Your task to perform on an android device: Go to Amazon Image 0: 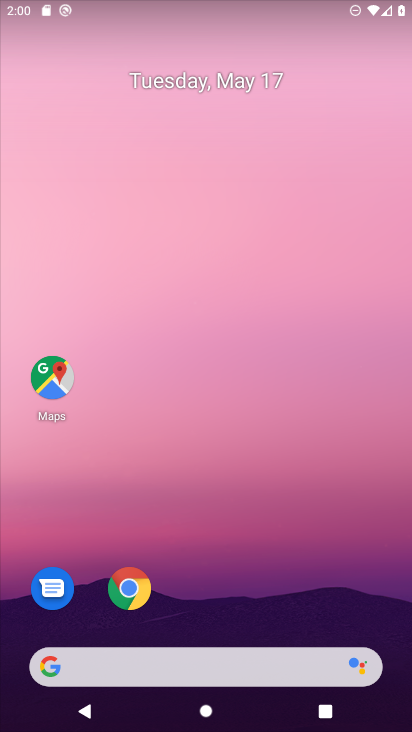
Step 0: click (145, 580)
Your task to perform on an android device: Go to Amazon Image 1: 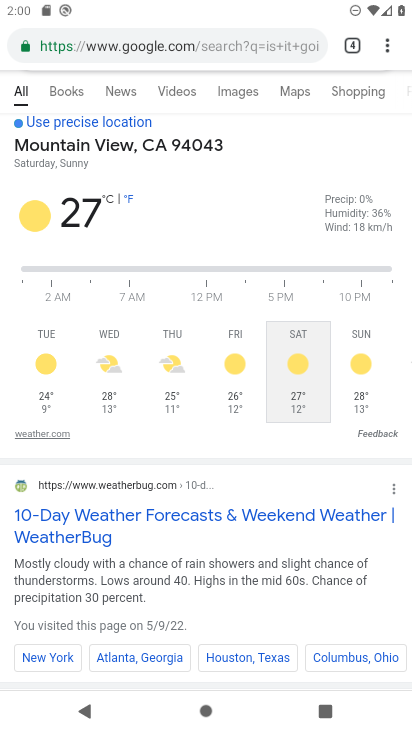
Step 1: click (357, 41)
Your task to perform on an android device: Go to Amazon Image 2: 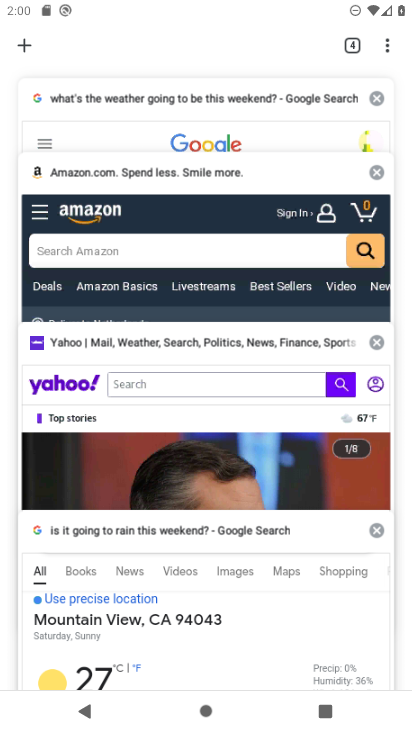
Step 2: click (136, 209)
Your task to perform on an android device: Go to Amazon Image 3: 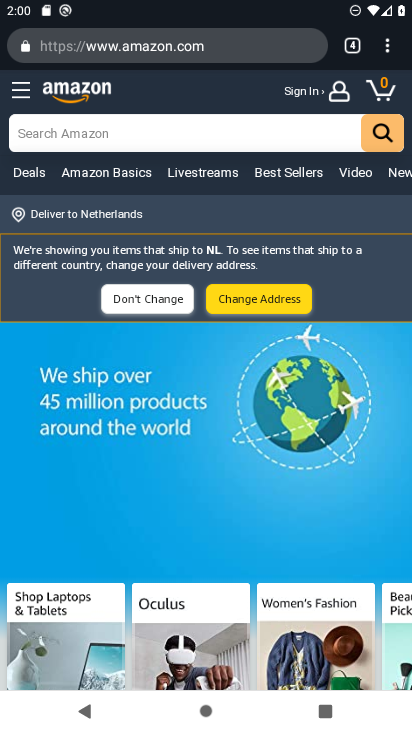
Step 3: task complete